Your task to perform on an android device: Open the Play Movies app and select the watchlist tab. Image 0: 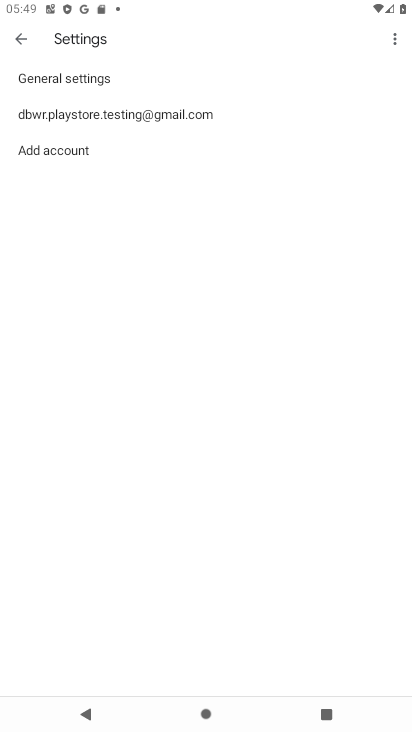
Step 0: press home button
Your task to perform on an android device: Open the Play Movies app and select the watchlist tab. Image 1: 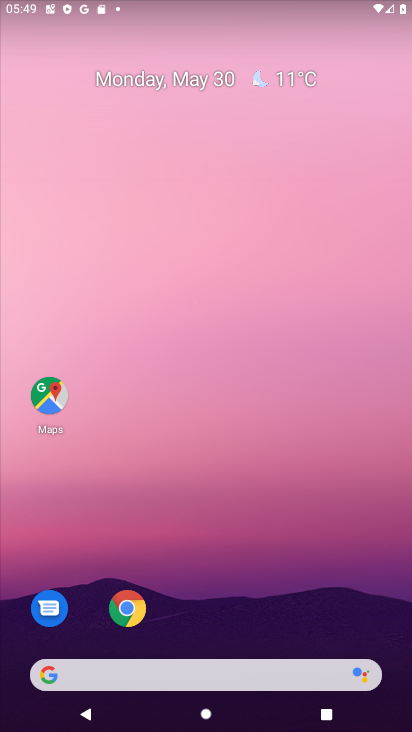
Step 1: drag from (250, 607) to (242, 258)
Your task to perform on an android device: Open the Play Movies app and select the watchlist tab. Image 2: 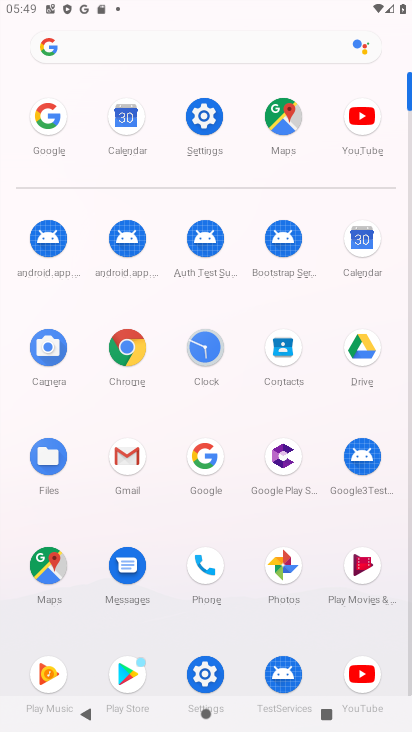
Step 2: click (361, 571)
Your task to perform on an android device: Open the Play Movies app and select the watchlist tab. Image 3: 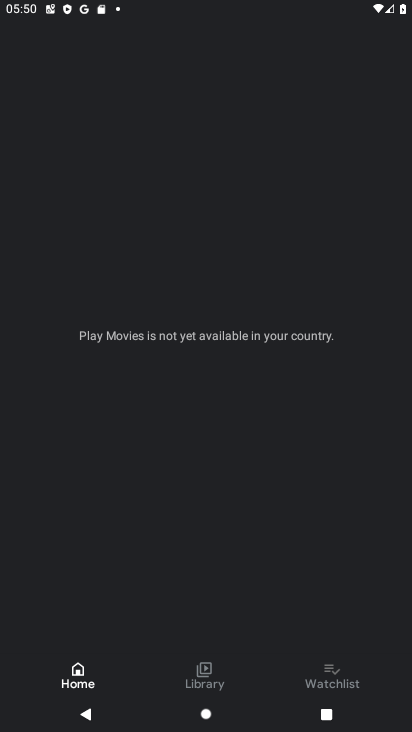
Step 3: click (326, 683)
Your task to perform on an android device: Open the Play Movies app and select the watchlist tab. Image 4: 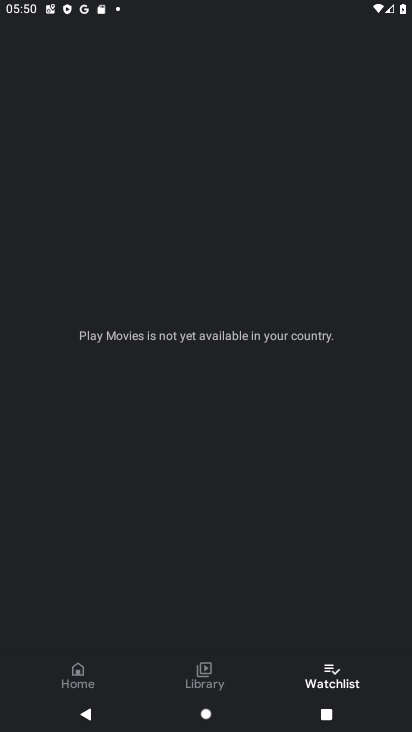
Step 4: task complete